Your task to perform on an android device: set the timer Image 0: 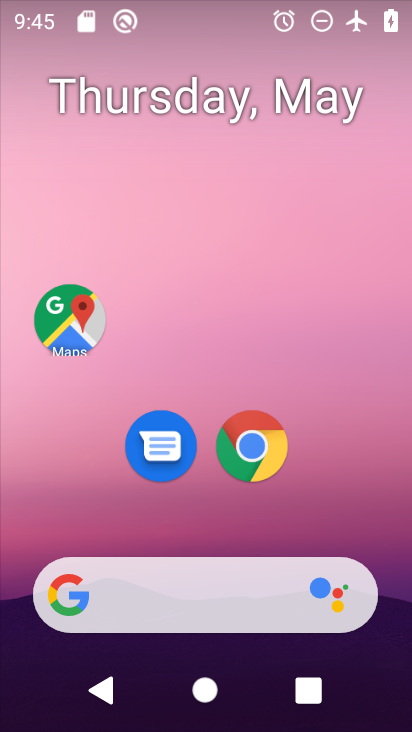
Step 0: press home button
Your task to perform on an android device: set the timer Image 1: 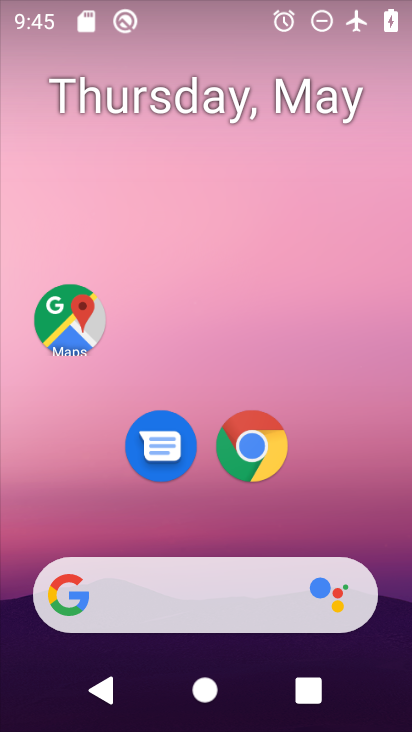
Step 1: drag from (389, 476) to (381, 121)
Your task to perform on an android device: set the timer Image 2: 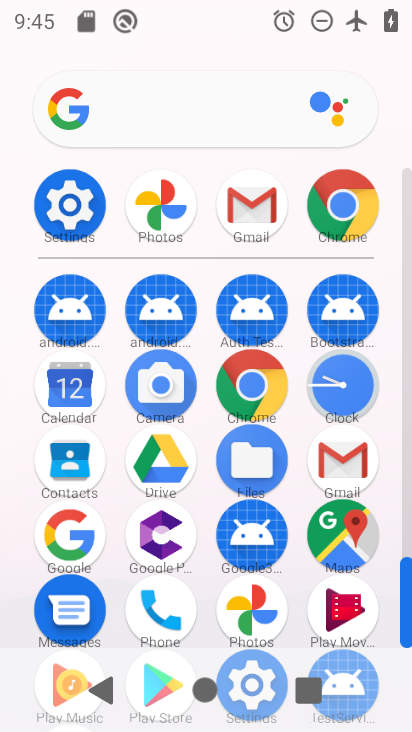
Step 2: click (358, 391)
Your task to perform on an android device: set the timer Image 3: 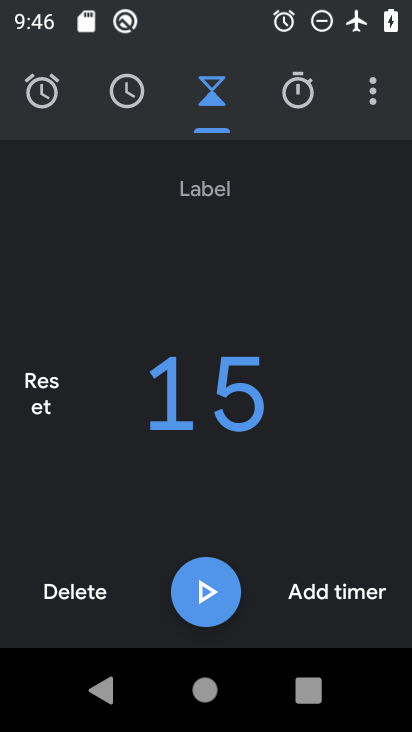
Step 3: click (75, 591)
Your task to perform on an android device: set the timer Image 4: 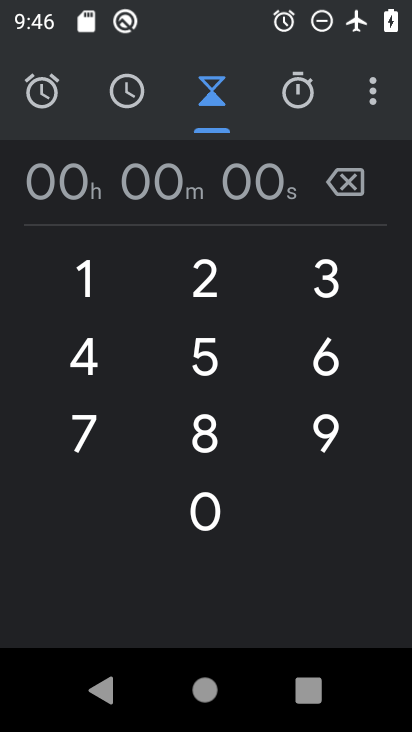
Step 4: click (89, 270)
Your task to perform on an android device: set the timer Image 5: 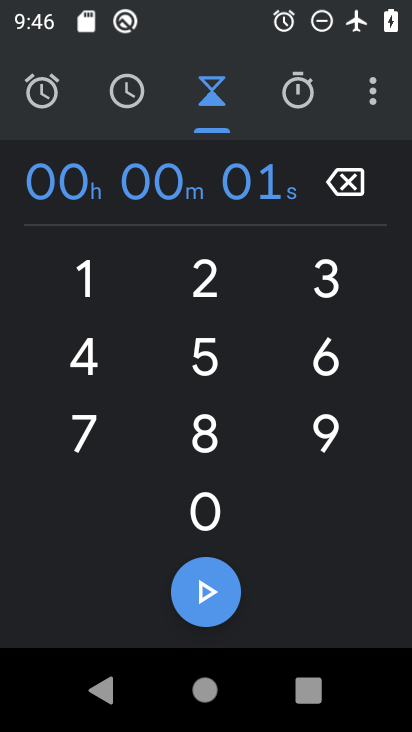
Step 5: click (196, 282)
Your task to perform on an android device: set the timer Image 6: 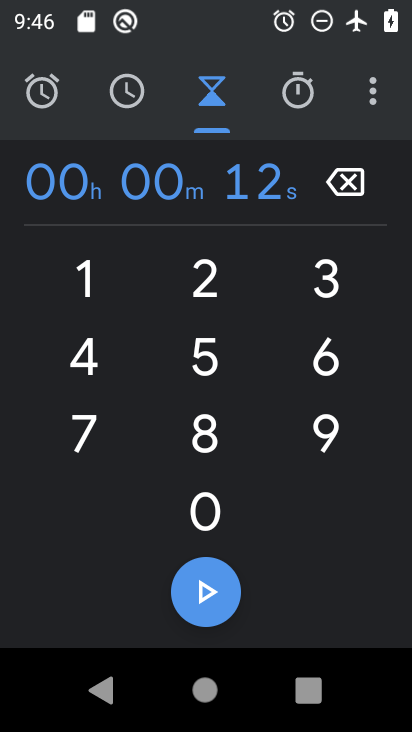
Step 6: click (205, 595)
Your task to perform on an android device: set the timer Image 7: 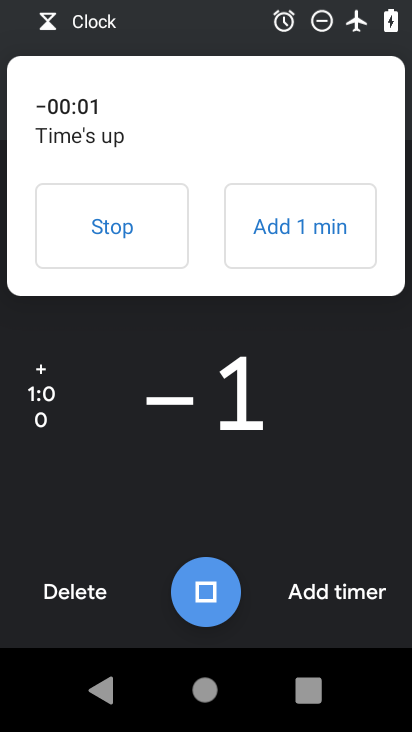
Step 7: click (133, 228)
Your task to perform on an android device: set the timer Image 8: 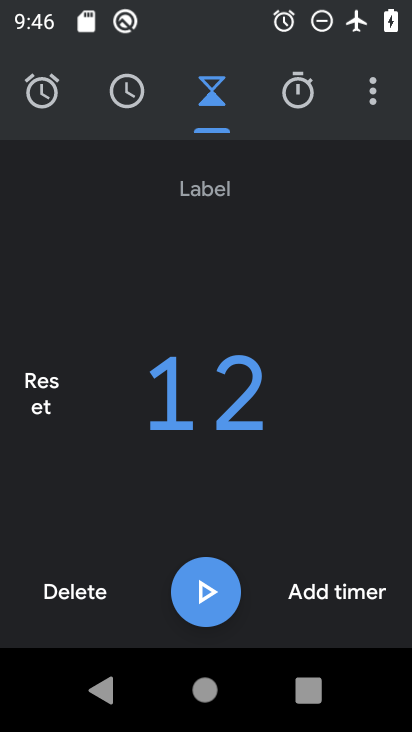
Step 8: task complete